Your task to perform on an android device: turn on wifi Image 0: 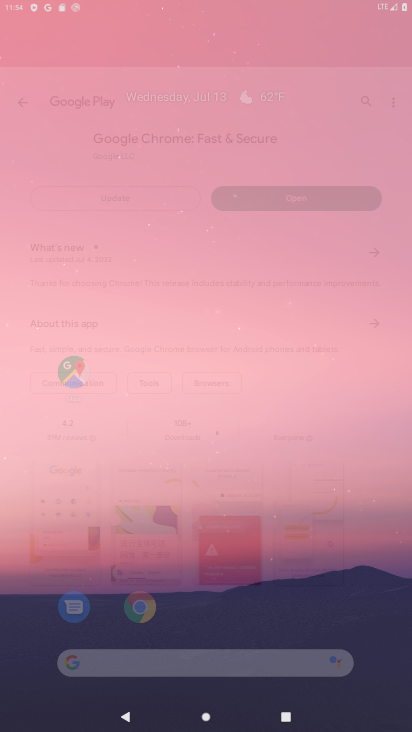
Step 0: click (161, 680)
Your task to perform on an android device: turn on wifi Image 1: 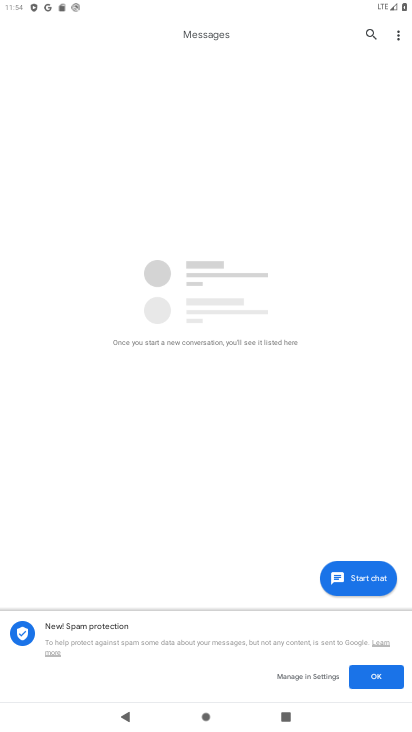
Step 1: press home button
Your task to perform on an android device: turn on wifi Image 2: 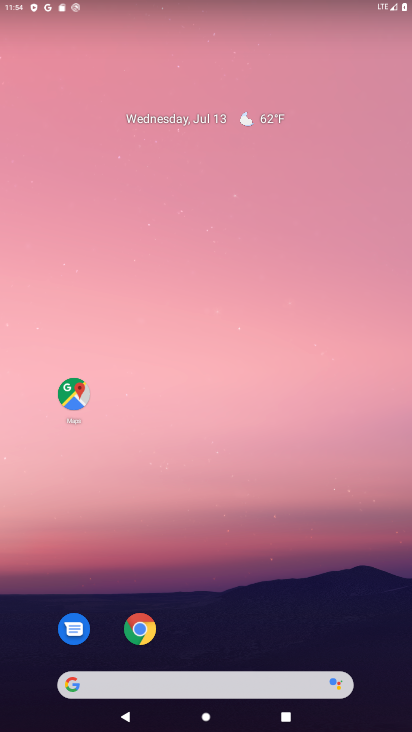
Step 2: click (277, 110)
Your task to perform on an android device: turn on wifi Image 3: 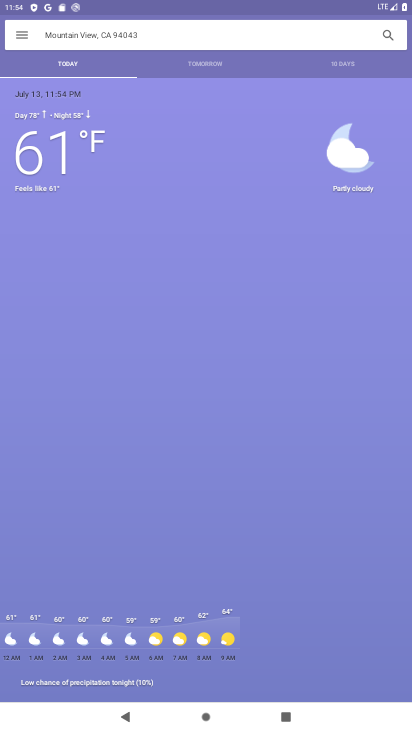
Step 3: drag from (173, 0) to (198, 492)
Your task to perform on an android device: turn on wifi Image 4: 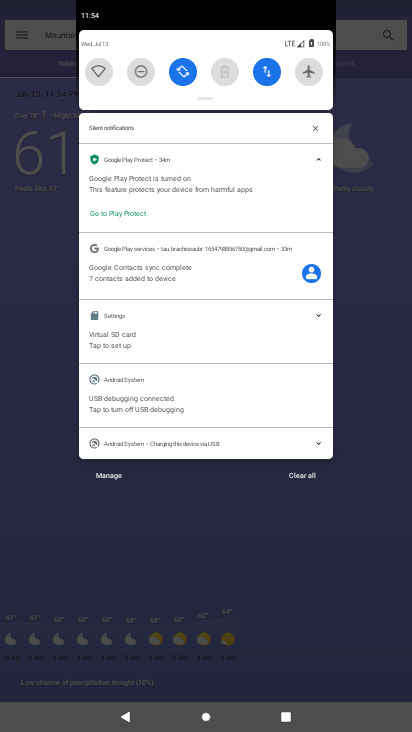
Step 4: click (98, 63)
Your task to perform on an android device: turn on wifi Image 5: 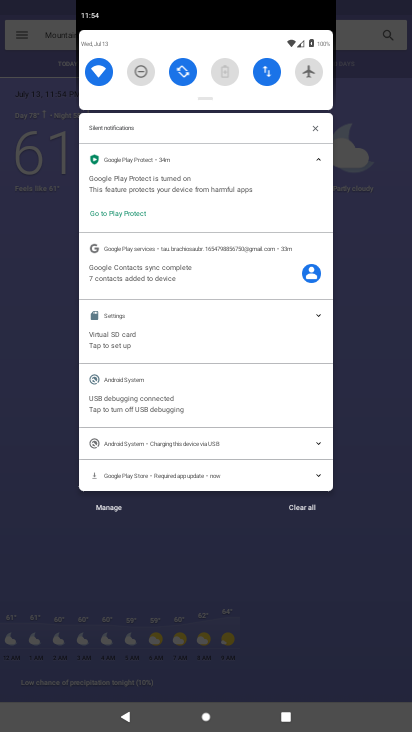
Step 5: task complete